Your task to perform on an android device: Set the phone to "Do not disturb". Image 0: 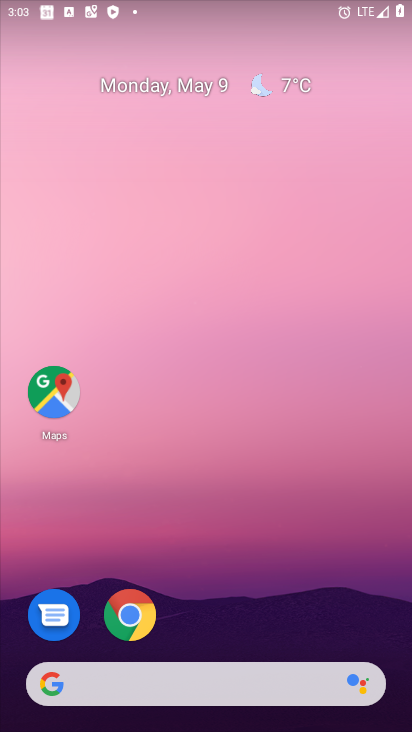
Step 0: drag from (396, 656) to (323, 23)
Your task to perform on an android device: Set the phone to "Do not disturb". Image 1: 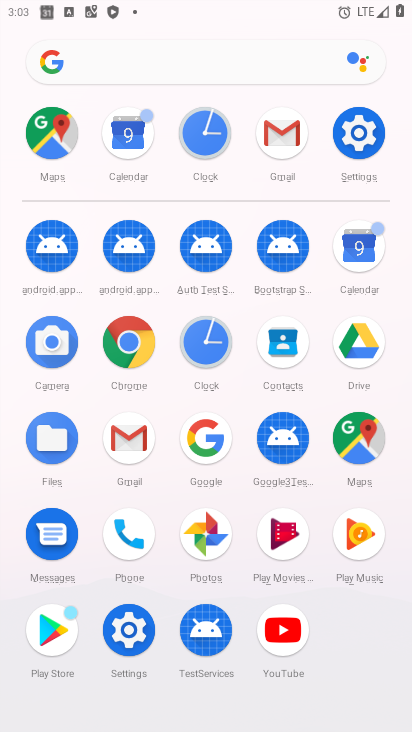
Step 1: click (127, 629)
Your task to perform on an android device: Set the phone to "Do not disturb". Image 2: 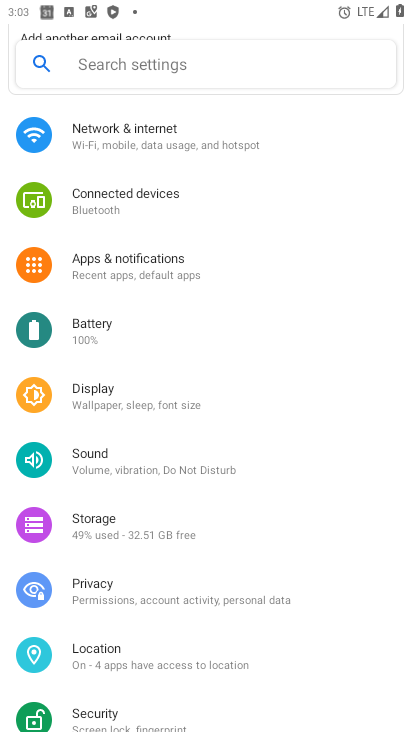
Step 2: click (108, 464)
Your task to perform on an android device: Set the phone to "Do not disturb". Image 3: 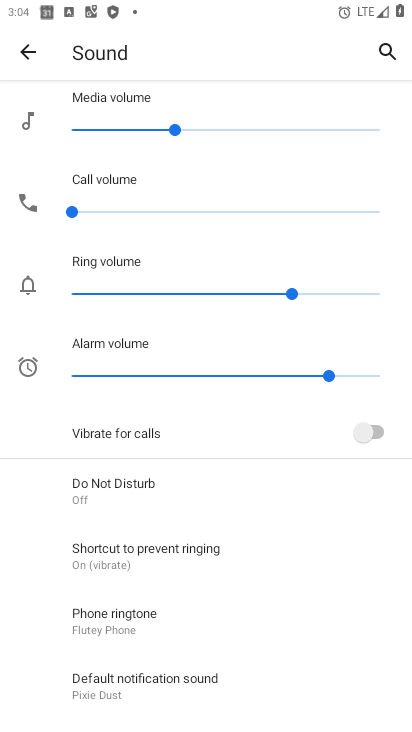
Step 3: click (102, 488)
Your task to perform on an android device: Set the phone to "Do not disturb". Image 4: 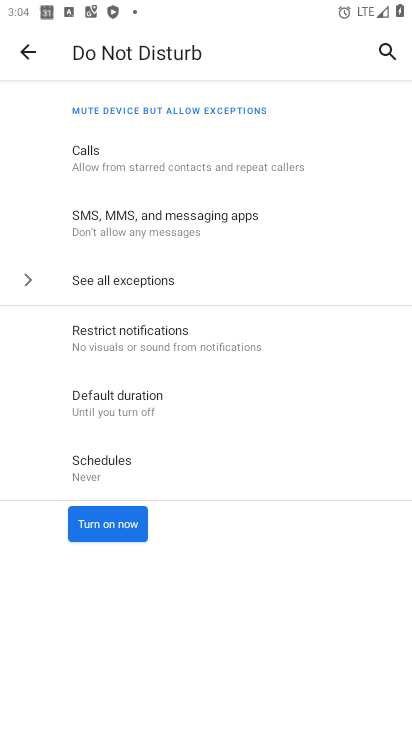
Step 4: click (115, 528)
Your task to perform on an android device: Set the phone to "Do not disturb". Image 5: 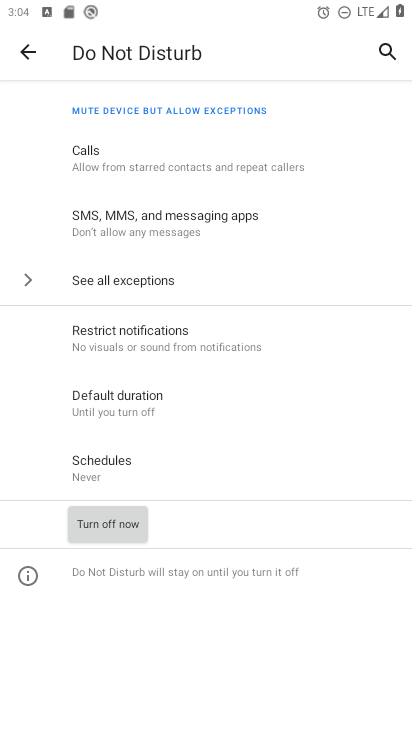
Step 5: task complete